Your task to perform on an android device: install app "Microsoft Excel" Image 0: 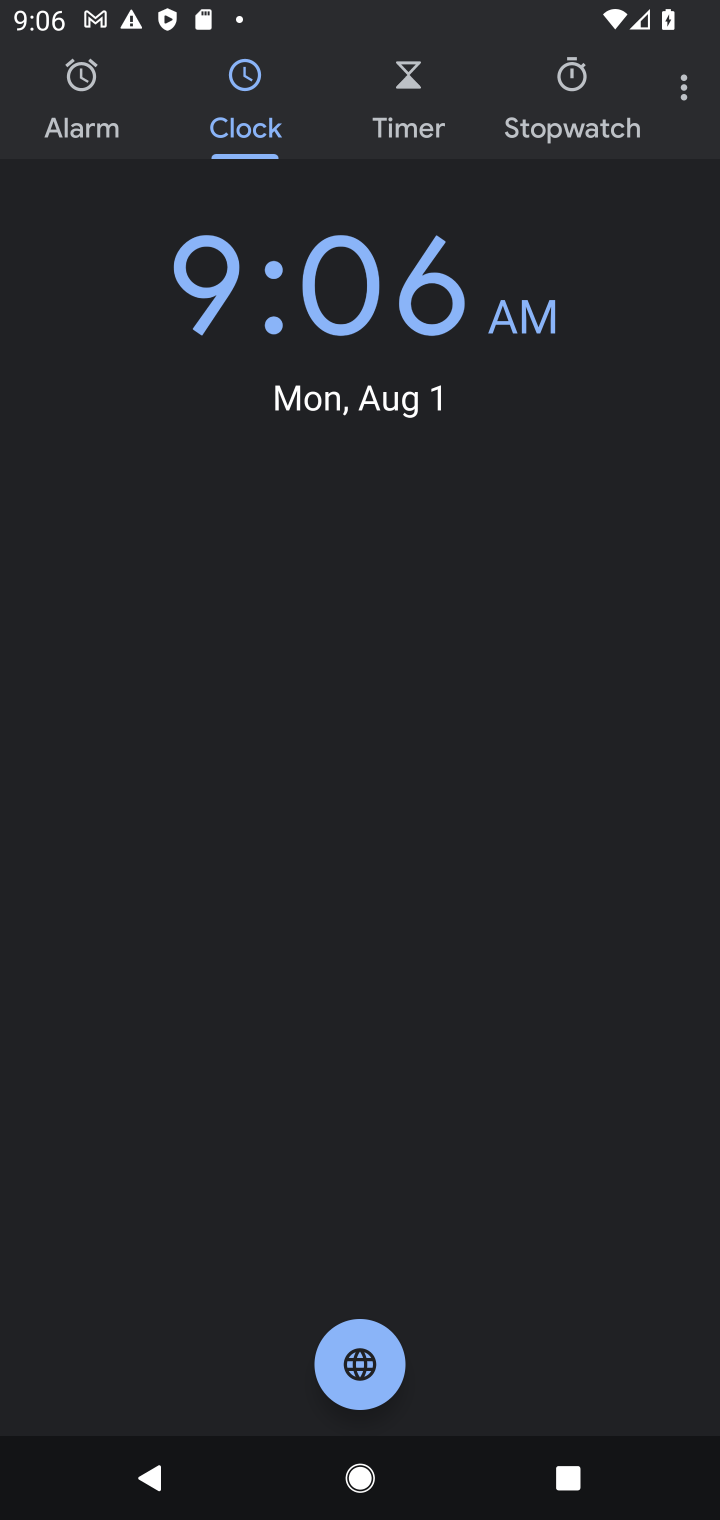
Step 0: press home button
Your task to perform on an android device: install app "Microsoft Excel" Image 1: 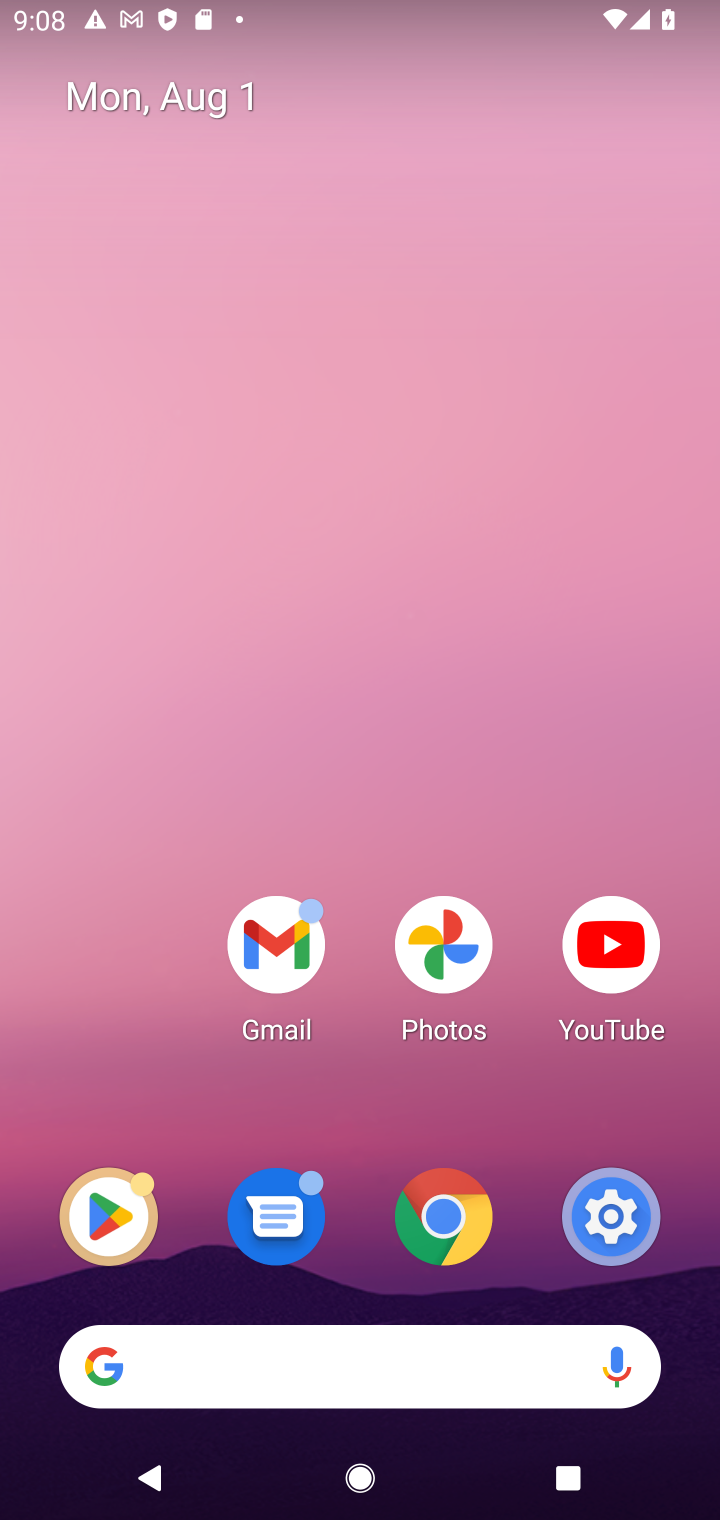
Step 1: click (111, 1223)
Your task to perform on an android device: install app "Microsoft Excel" Image 2: 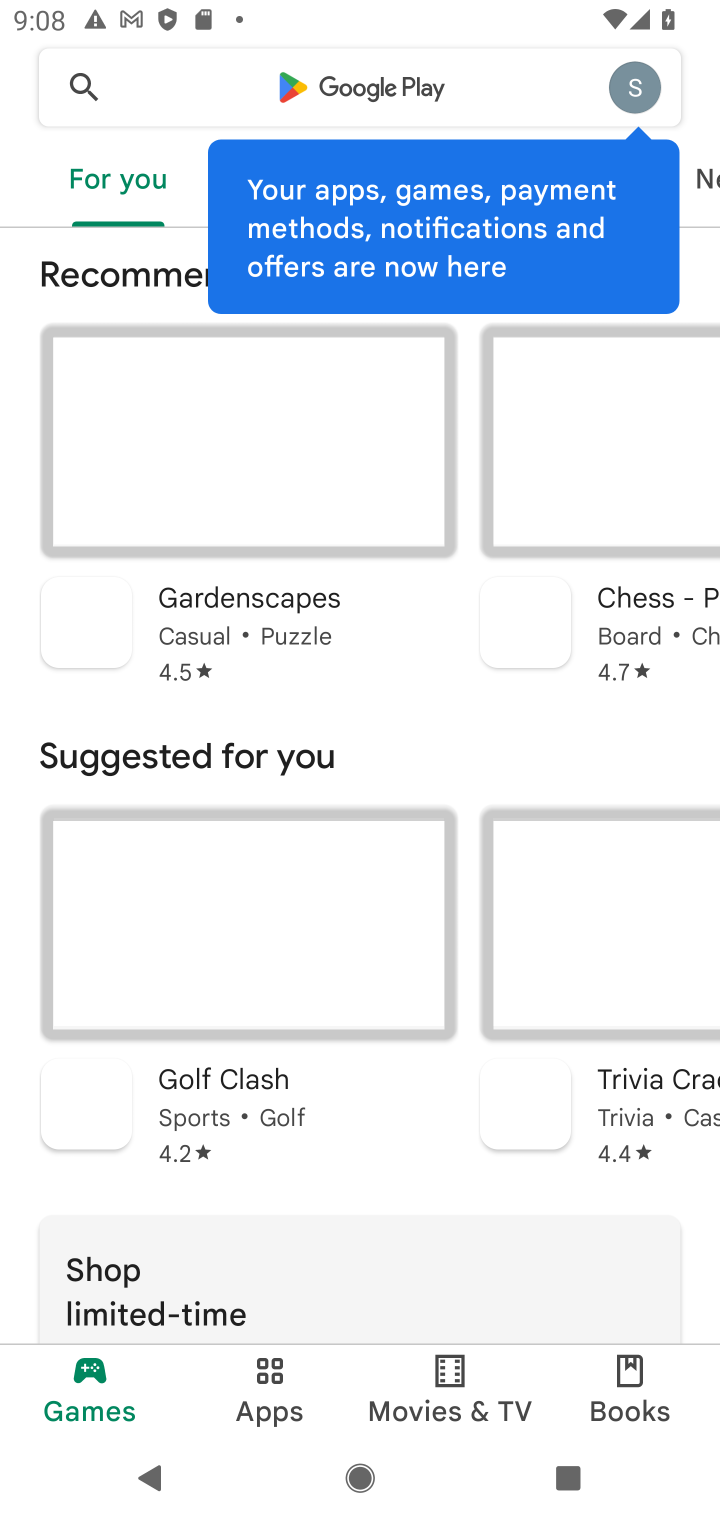
Step 2: click (236, 102)
Your task to perform on an android device: install app "Microsoft Excel" Image 3: 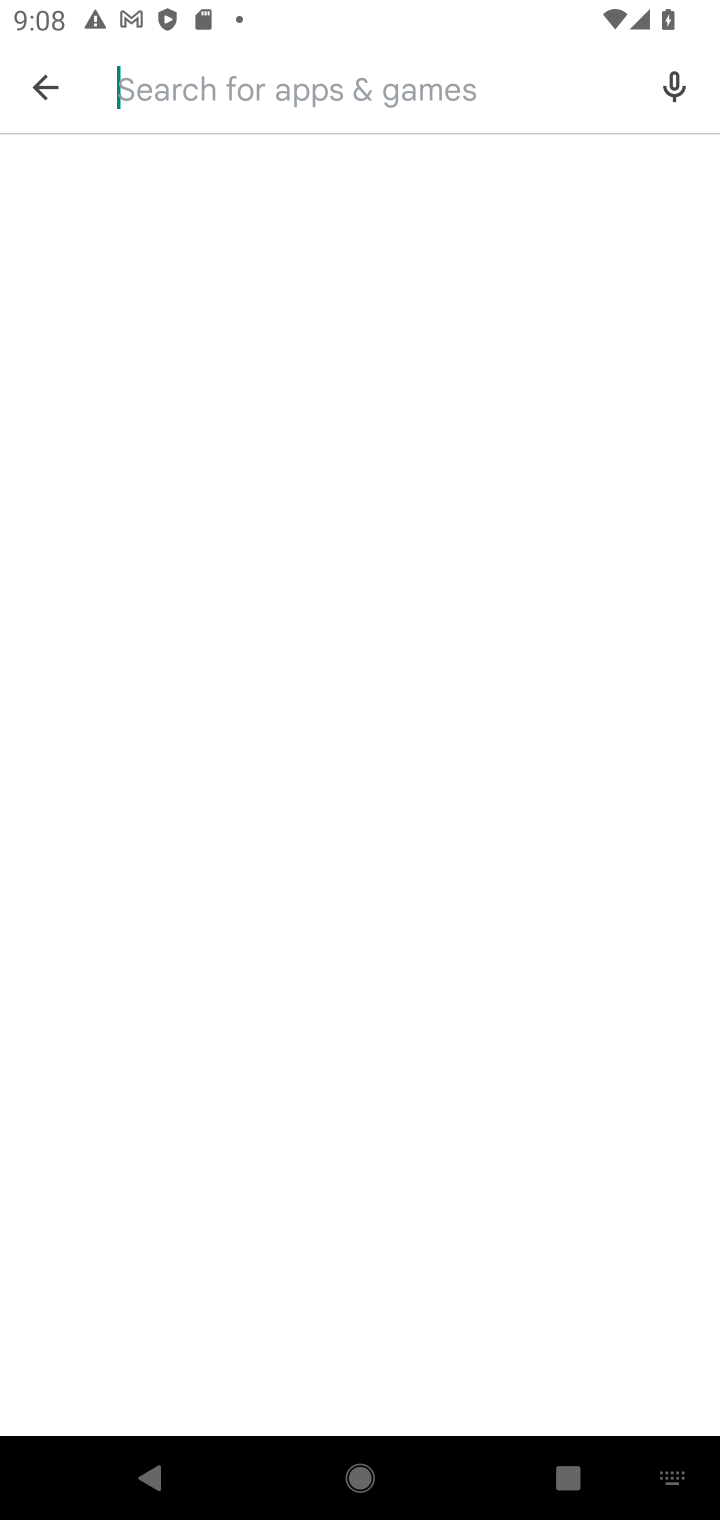
Step 3: type "Microsoft Excel"
Your task to perform on an android device: install app "Microsoft Excel" Image 4: 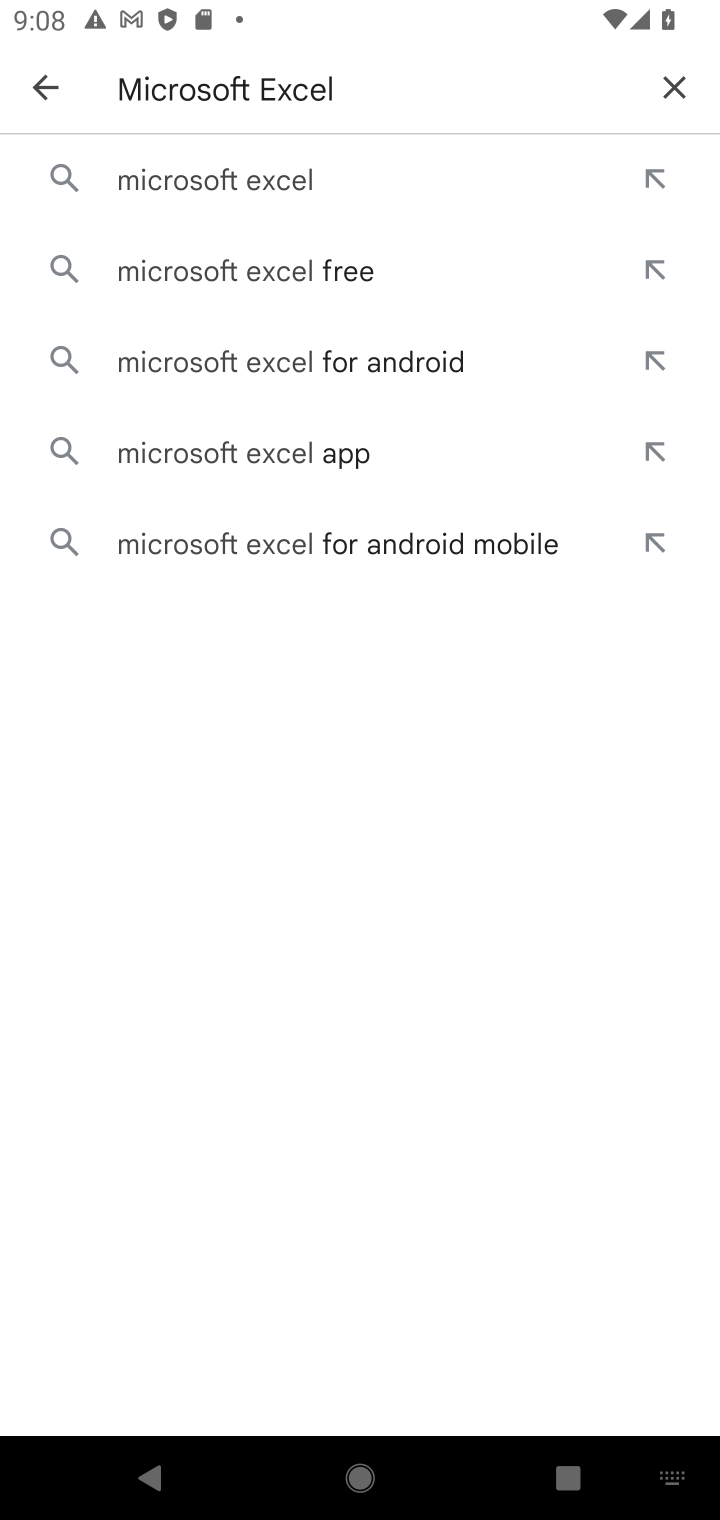
Step 4: click (154, 212)
Your task to perform on an android device: install app "Microsoft Excel" Image 5: 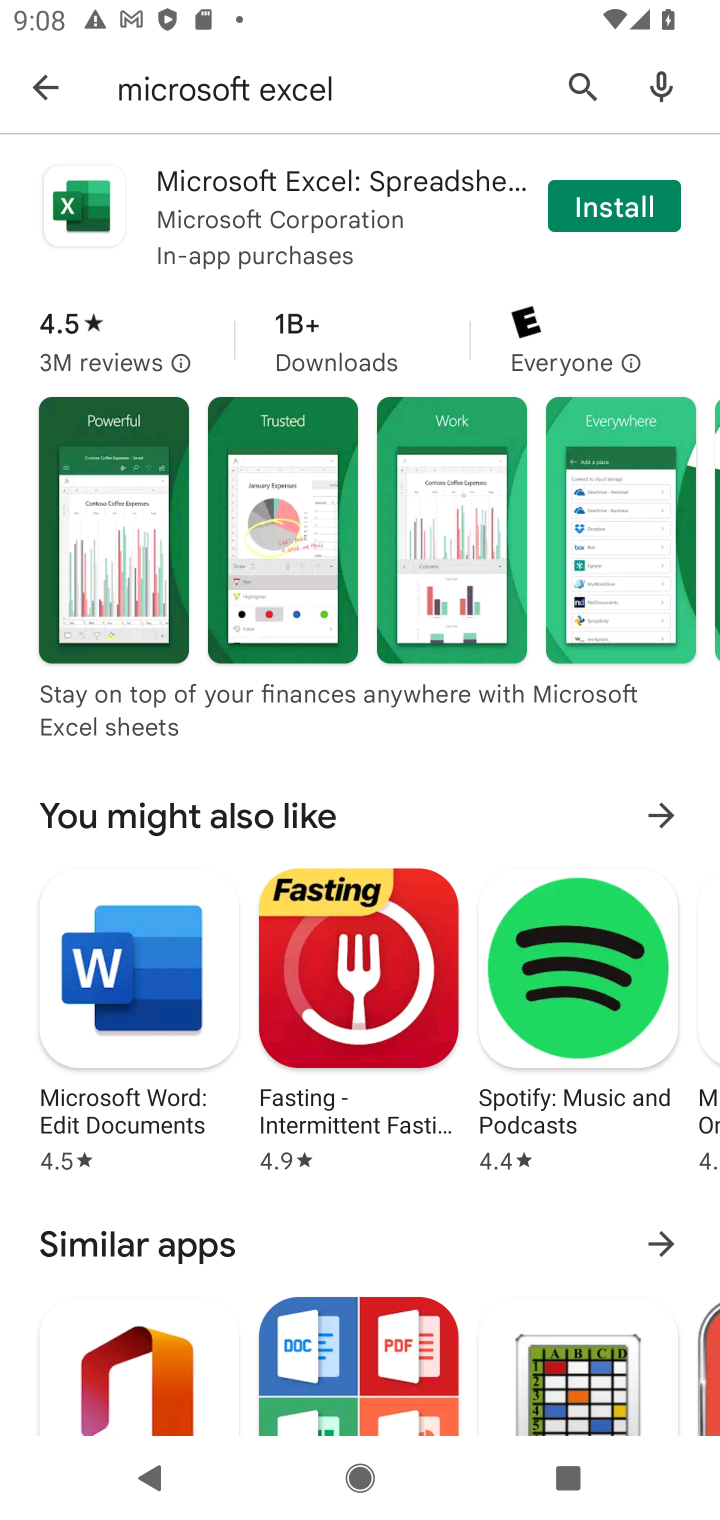
Step 5: click (635, 228)
Your task to perform on an android device: install app "Microsoft Excel" Image 6: 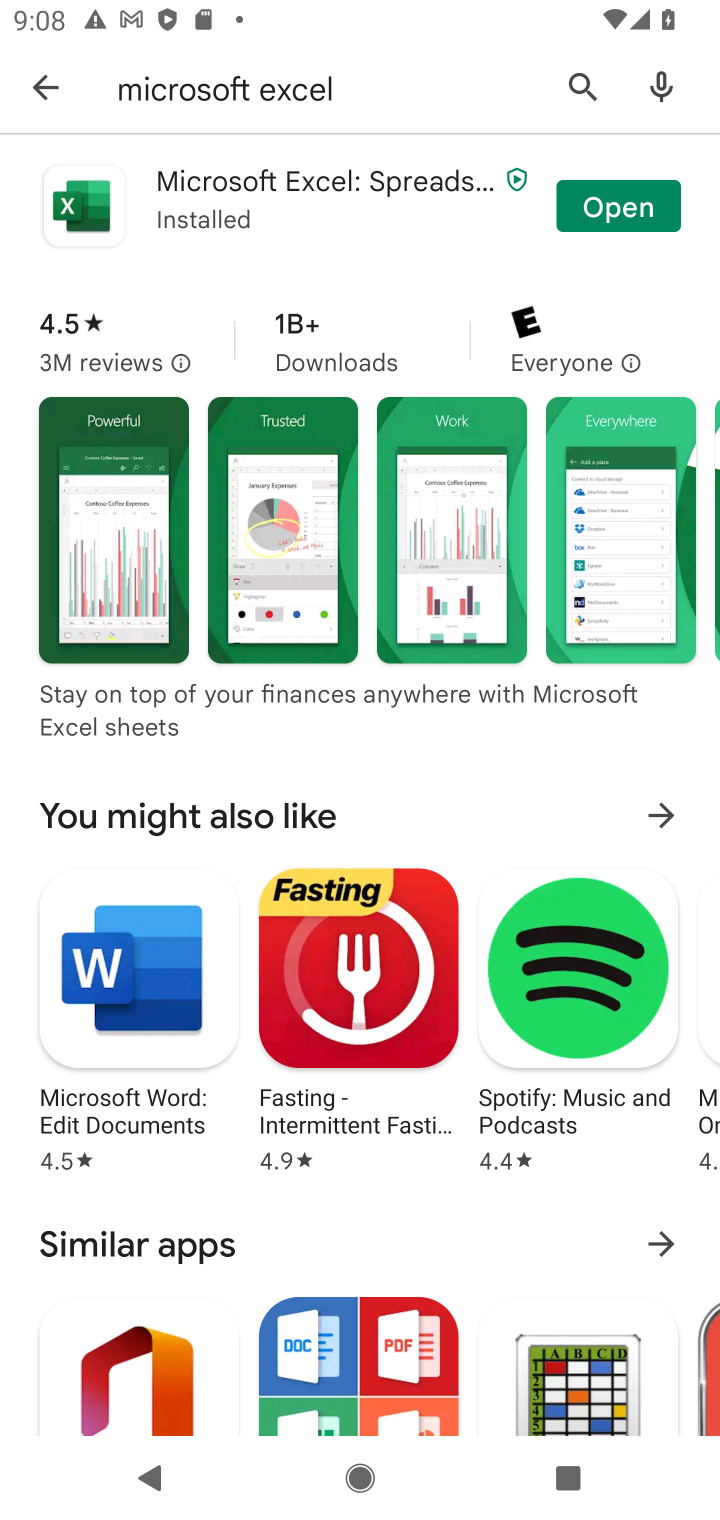
Step 6: task complete